Your task to perform on an android device: move a message to another label in the gmail app Image 0: 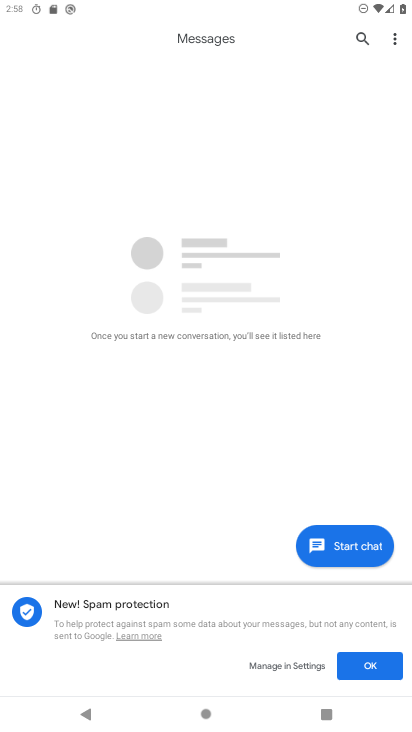
Step 0: press home button
Your task to perform on an android device: move a message to another label in the gmail app Image 1: 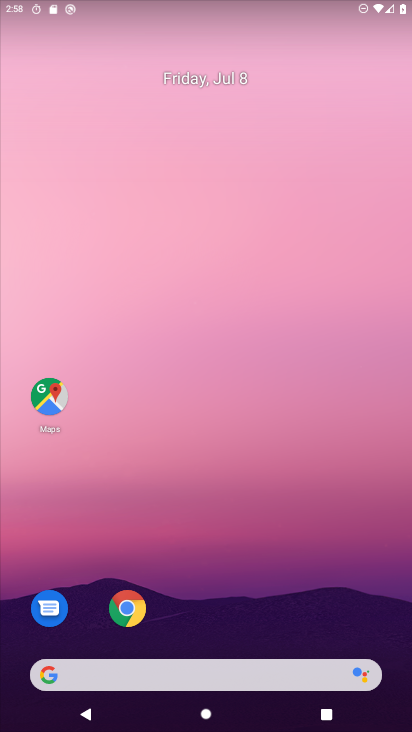
Step 1: drag from (249, 550) to (249, 92)
Your task to perform on an android device: move a message to another label in the gmail app Image 2: 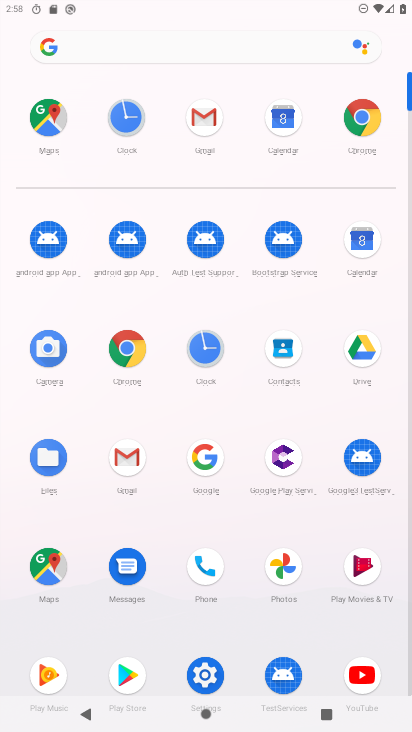
Step 2: click (113, 455)
Your task to perform on an android device: move a message to another label in the gmail app Image 3: 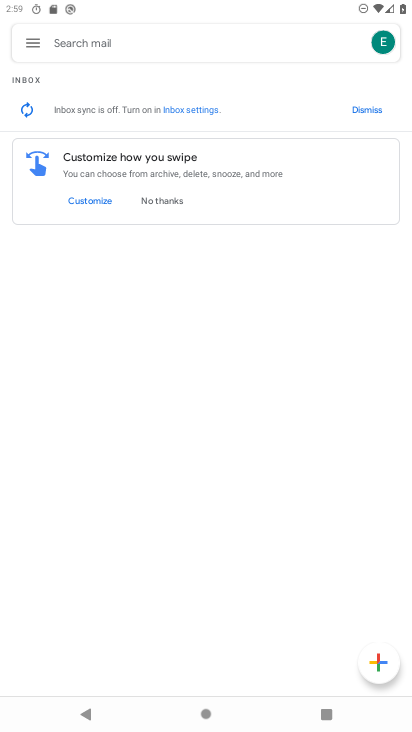
Step 3: task complete